Your task to perform on an android device: Open the map Image 0: 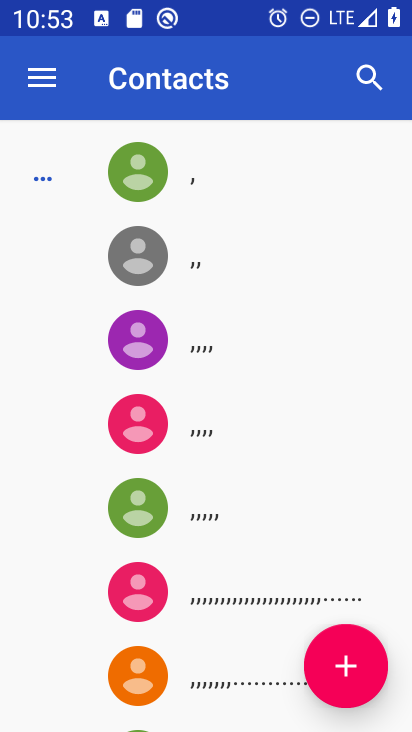
Step 0: press home button
Your task to perform on an android device: Open the map Image 1: 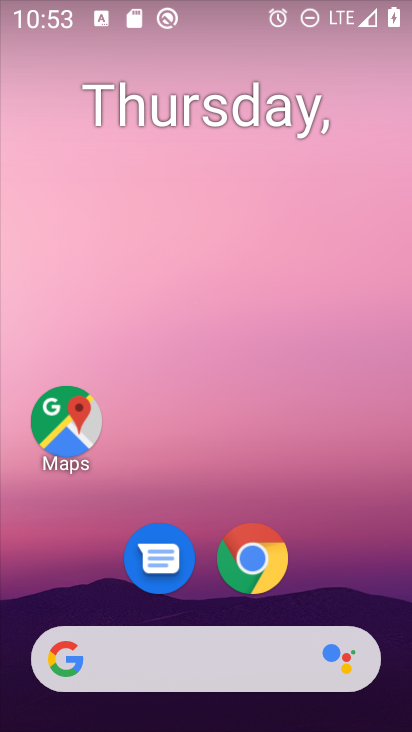
Step 1: click (65, 419)
Your task to perform on an android device: Open the map Image 2: 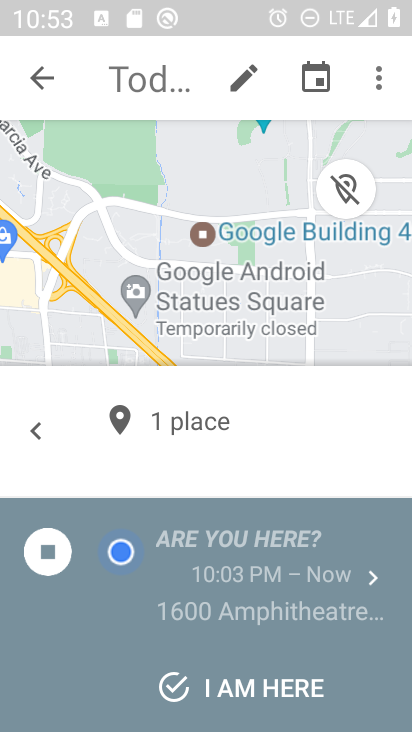
Step 2: task complete